Your task to perform on an android device: move a message to another label in the gmail app Image 0: 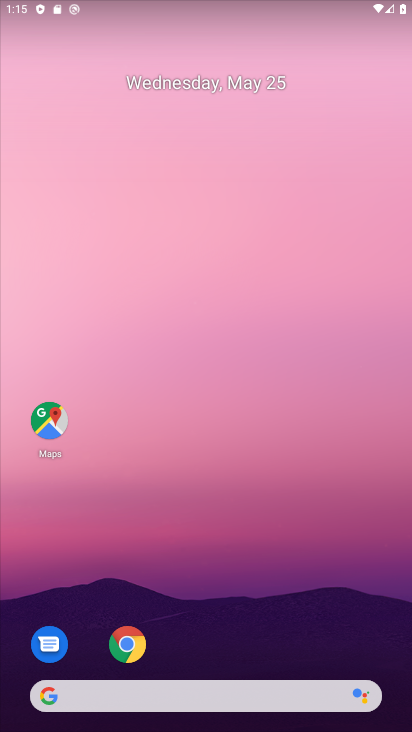
Step 0: drag from (200, 644) to (198, 196)
Your task to perform on an android device: move a message to another label in the gmail app Image 1: 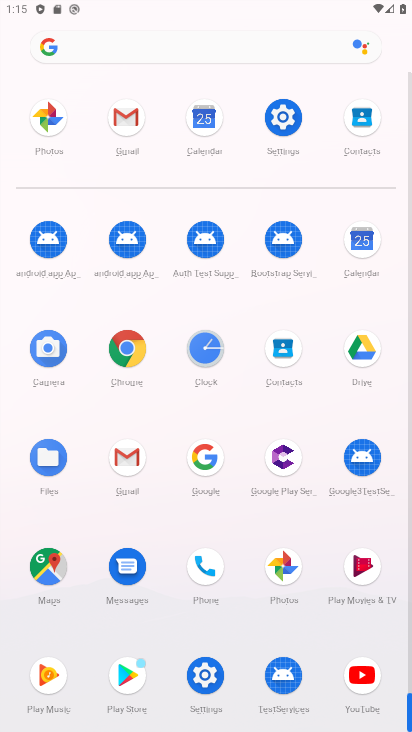
Step 1: click (135, 473)
Your task to perform on an android device: move a message to another label in the gmail app Image 2: 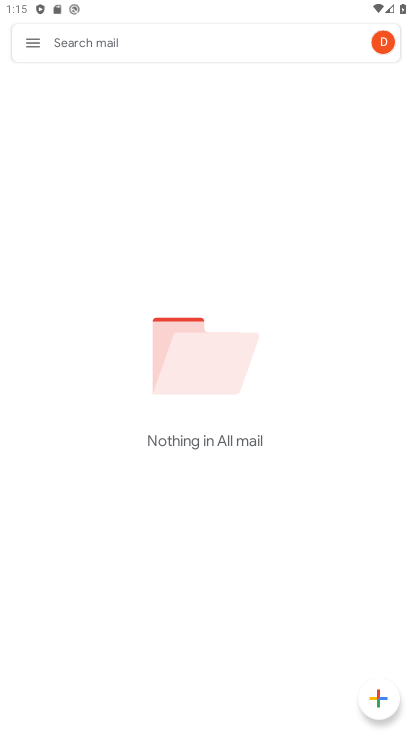
Step 2: click (27, 49)
Your task to perform on an android device: move a message to another label in the gmail app Image 3: 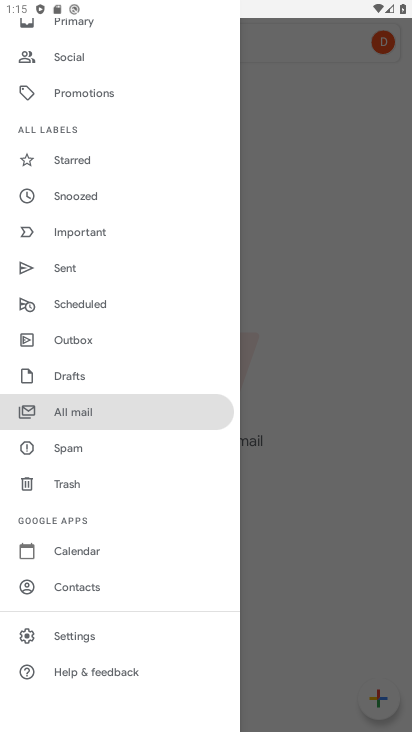
Step 3: click (92, 409)
Your task to perform on an android device: move a message to another label in the gmail app Image 4: 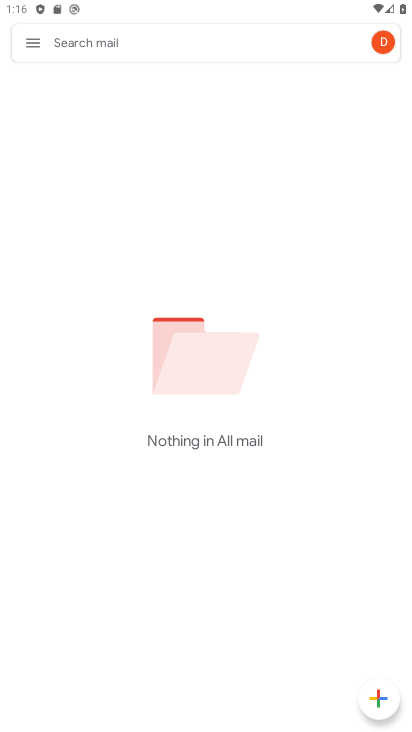
Step 4: task complete